Your task to perform on an android device: turn off notifications in google photos Image 0: 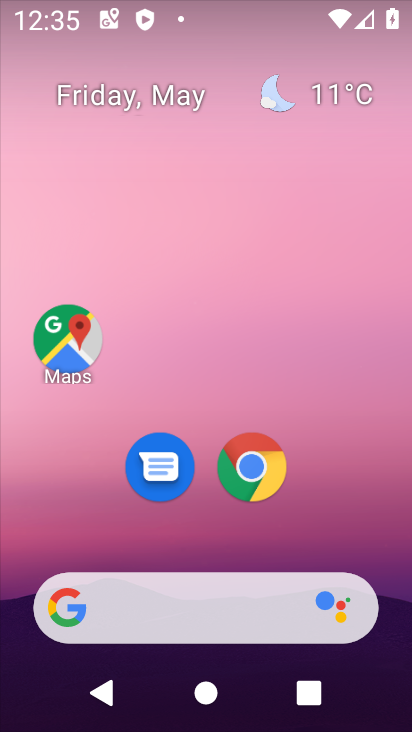
Step 0: drag from (368, 551) to (371, 92)
Your task to perform on an android device: turn off notifications in google photos Image 1: 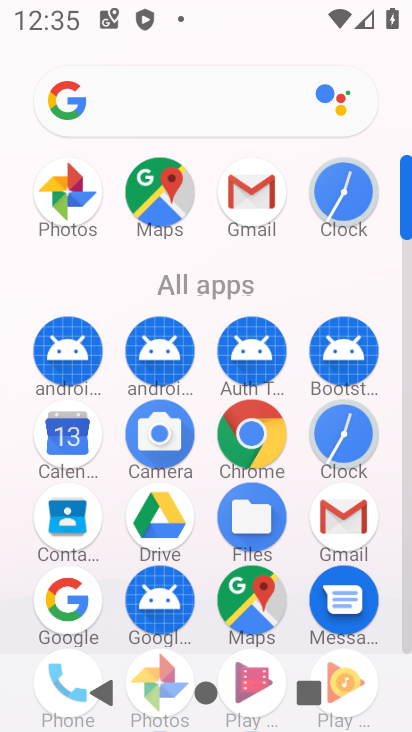
Step 1: drag from (200, 632) to (209, 377)
Your task to perform on an android device: turn off notifications in google photos Image 2: 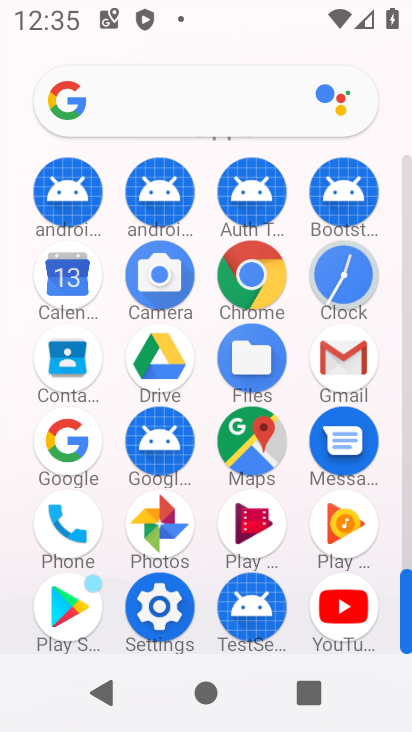
Step 2: click (171, 540)
Your task to perform on an android device: turn off notifications in google photos Image 3: 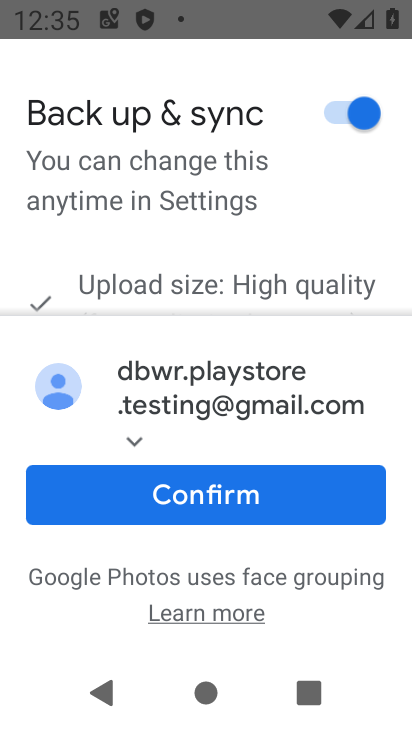
Step 3: click (237, 501)
Your task to perform on an android device: turn off notifications in google photos Image 4: 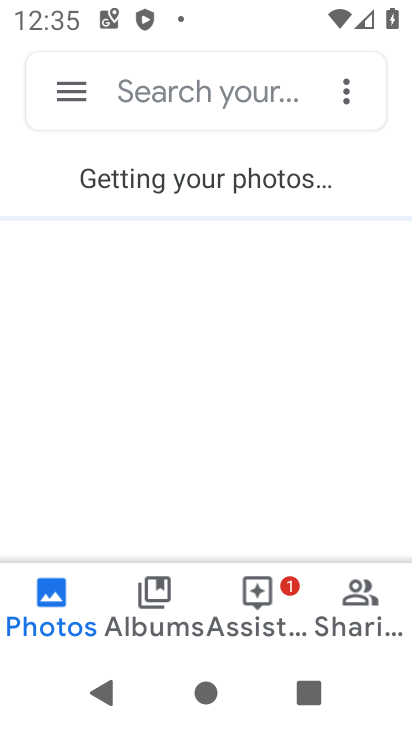
Step 4: click (282, 409)
Your task to perform on an android device: turn off notifications in google photos Image 5: 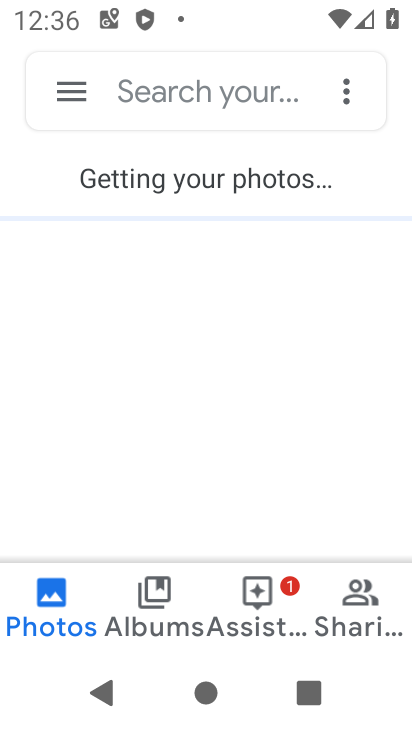
Step 5: press home button
Your task to perform on an android device: turn off notifications in google photos Image 6: 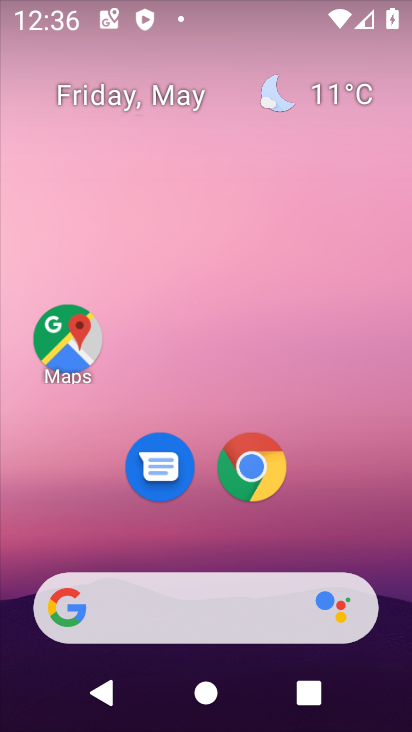
Step 6: drag from (349, 525) to (353, 124)
Your task to perform on an android device: turn off notifications in google photos Image 7: 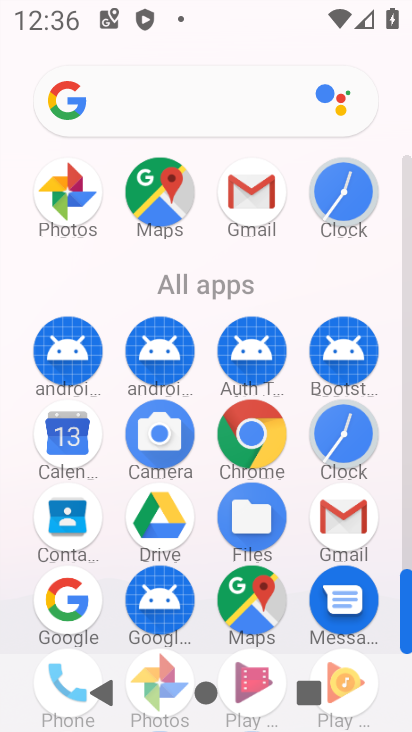
Step 7: click (274, 209)
Your task to perform on an android device: turn off notifications in google photos Image 8: 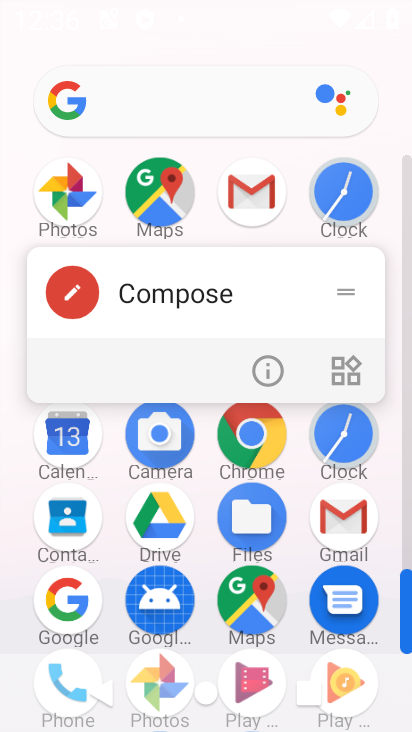
Step 8: click (251, 202)
Your task to perform on an android device: turn off notifications in google photos Image 9: 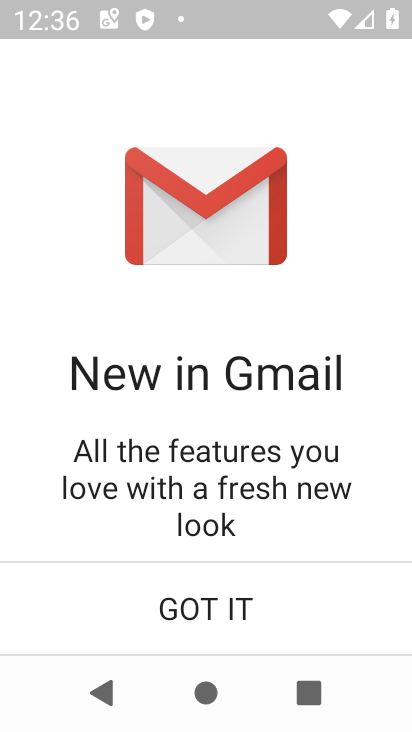
Step 9: click (198, 603)
Your task to perform on an android device: turn off notifications in google photos Image 10: 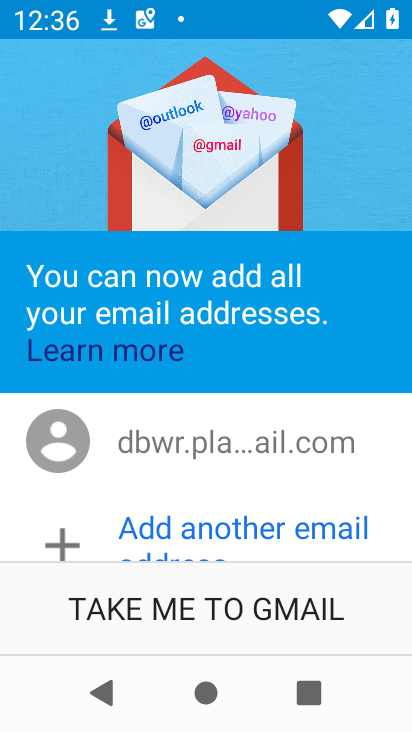
Step 10: click (213, 623)
Your task to perform on an android device: turn off notifications in google photos Image 11: 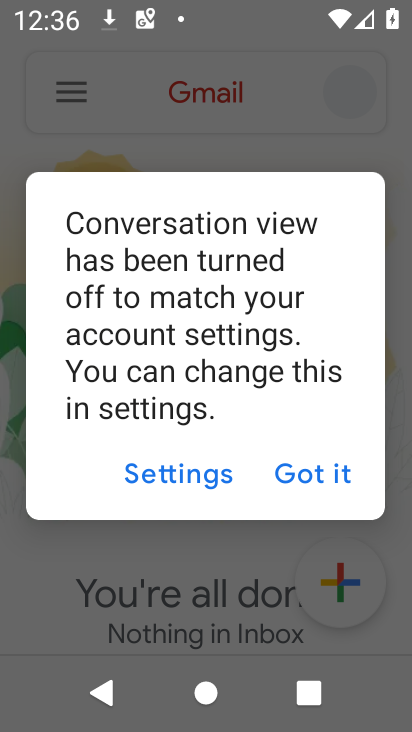
Step 11: click (327, 474)
Your task to perform on an android device: turn off notifications in google photos Image 12: 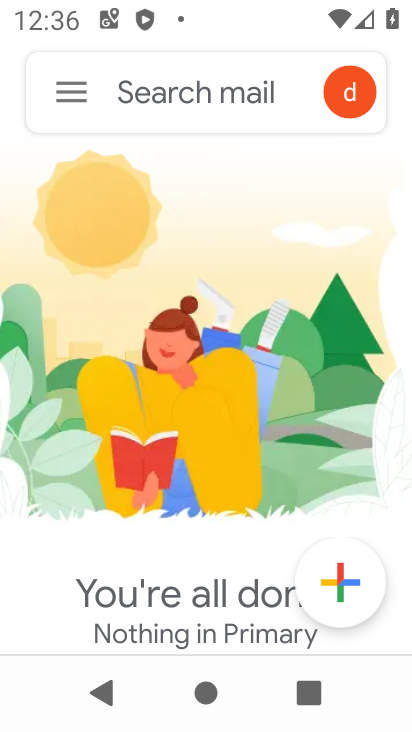
Step 12: click (66, 97)
Your task to perform on an android device: turn off notifications in google photos Image 13: 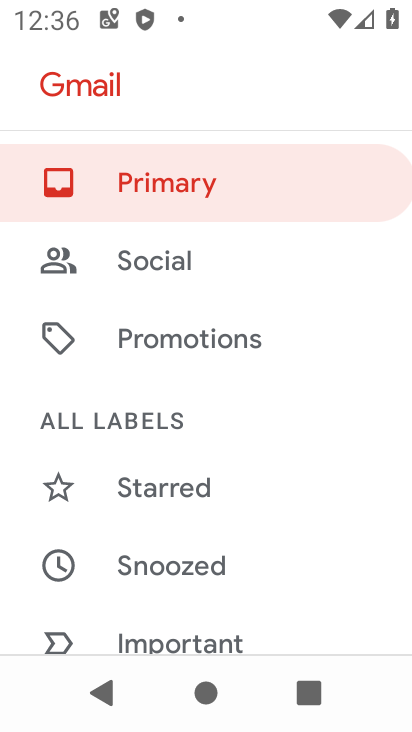
Step 13: drag from (264, 571) to (305, 278)
Your task to perform on an android device: turn off notifications in google photos Image 14: 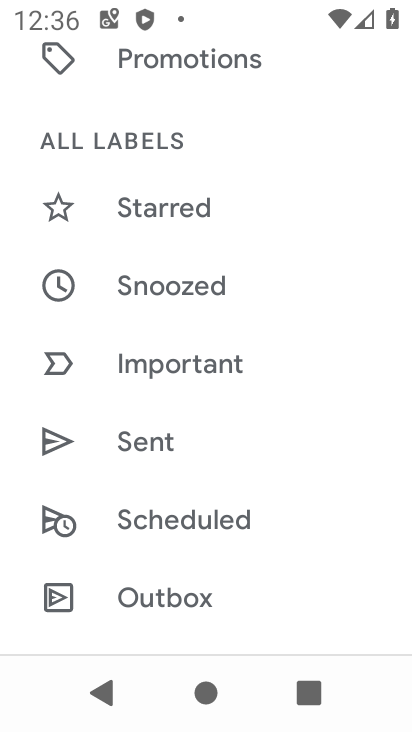
Step 14: drag from (283, 574) to (296, 280)
Your task to perform on an android device: turn off notifications in google photos Image 15: 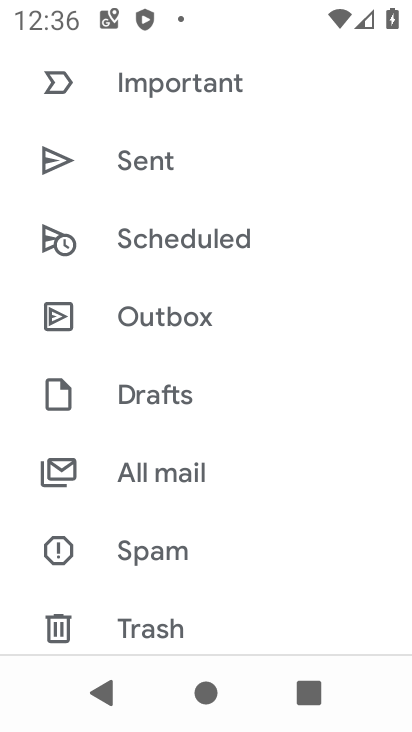
Step 15: drag from (220, 579) to (252, 291)
Your task to perform on an android device: turn off notifications in google photos Image 16: 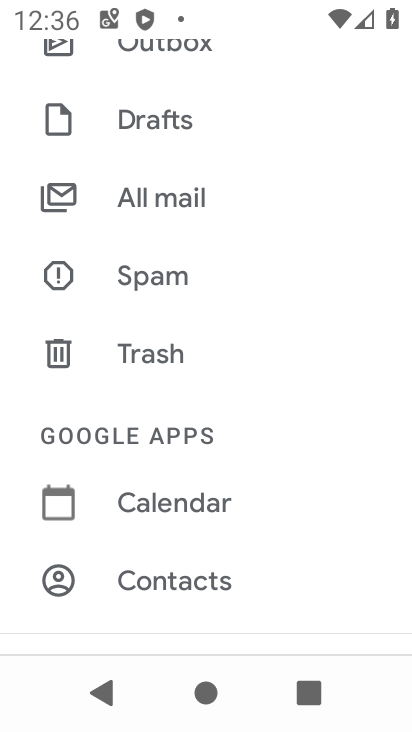
Step 16: drag from (211, 593) to (272, 338)
Your task to perform on an android device: turn off notifications in google photos Image 17: 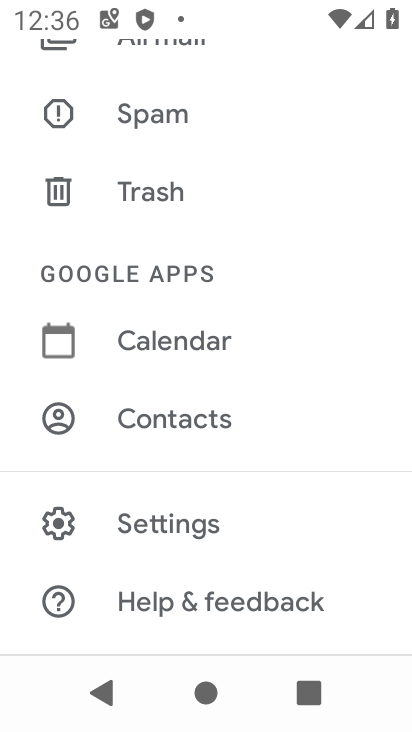
Step 17: click (210, 537)
Your task to perform on an android device: turn off notifications in google photos Image 18: 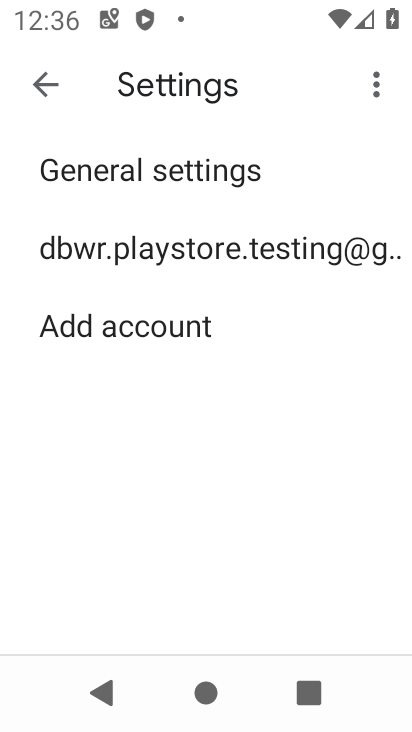
Step 18: click (261, 230)
Your task to perform on an android device: turn off notifications in google photos Image 19: 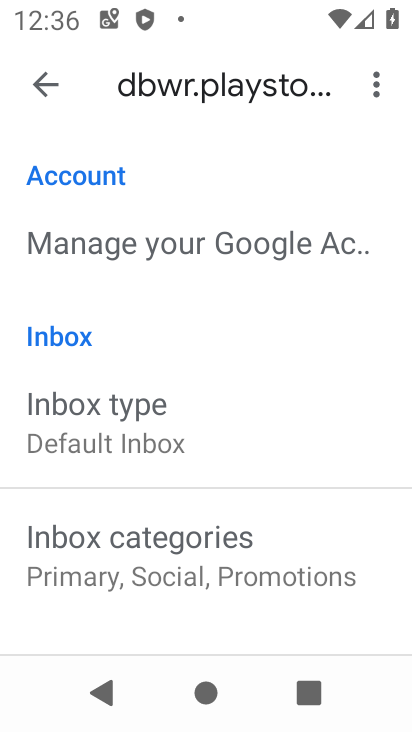
Step 19: drag from (250, 654) to (235, 319)
Your task to perform on an android device: turn off notifications in google photos Image 20: 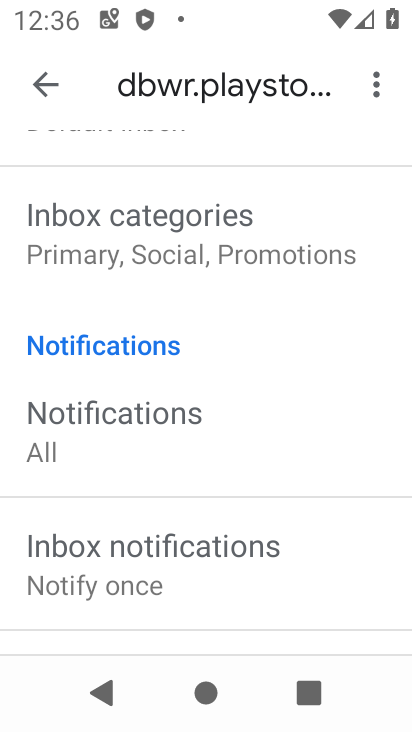
Step 20: click (145, 444)
Your task to perform on an android device: turn off notifications in google photos Image 21: 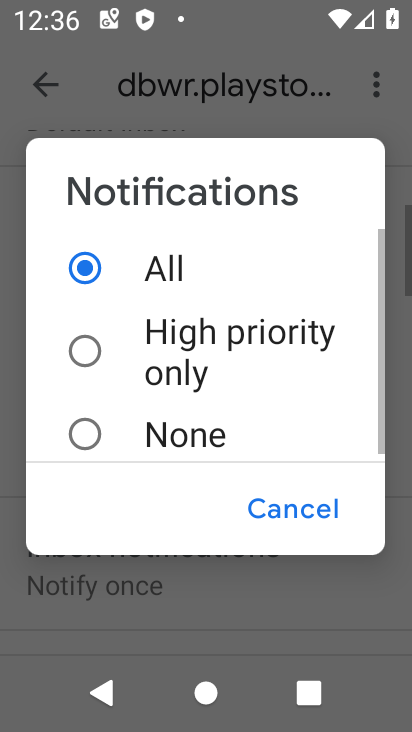
Step 21: click (113, 437)
Your task to perform on an android device: turn off notifications in google photos Image 22: 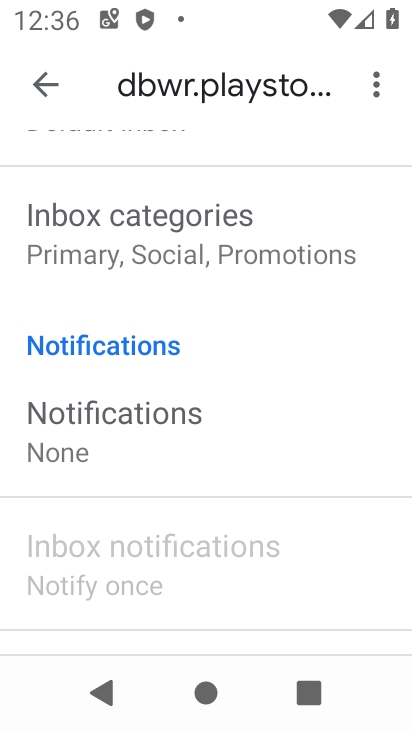
Step 22: task complete